Your task to perform on an android device: open the mobile data screen to see how much data has been used Image 0: 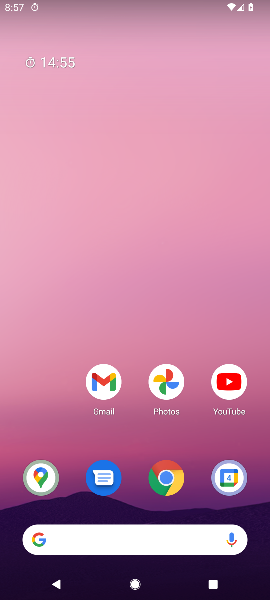
Step 0: press home button
Your task to perform on an android device: open the mobile data screen to see how much data has been used Image 1: 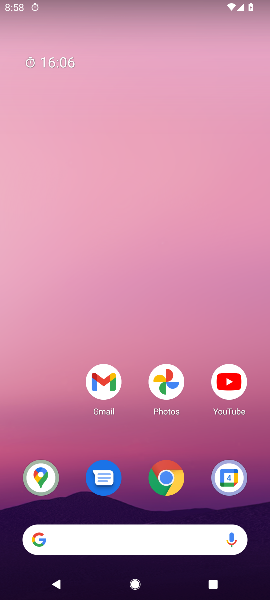
Step 1: drag from (128, 9) to (200, 596)
Your task to perform on an android device: open the mobile data screen to see how much data has been used Image 2: 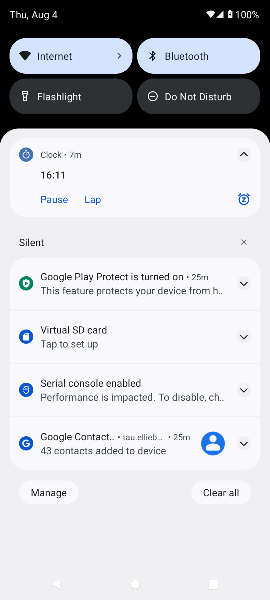
Step 2: click (72, 52)
Your task to perform on an android device: open the mobile data screen to see how much data has been used Image 3: 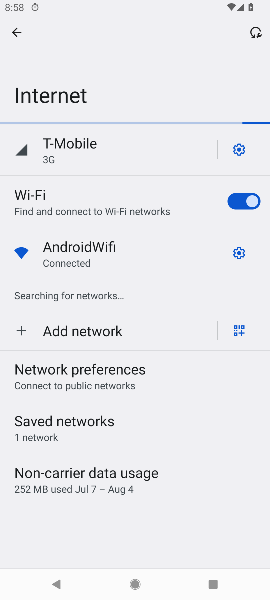
Step 3: task complete